Your task to perform on an android device: Show me recent news Image 0: 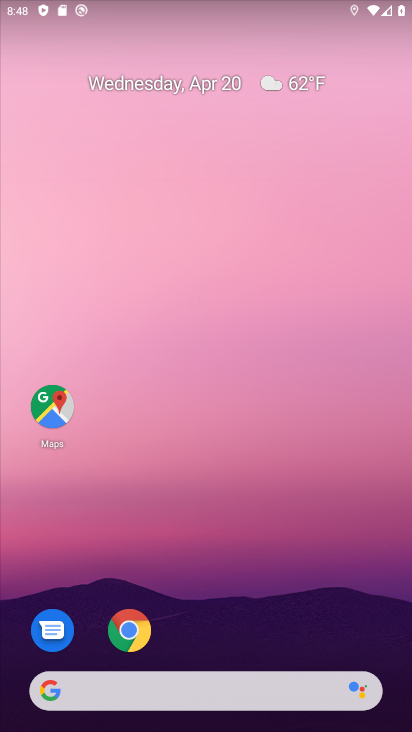
Step 0: drag from (207, 646) to (274, 20)
Your task to perform on an android device: Show me recent news Image 1: 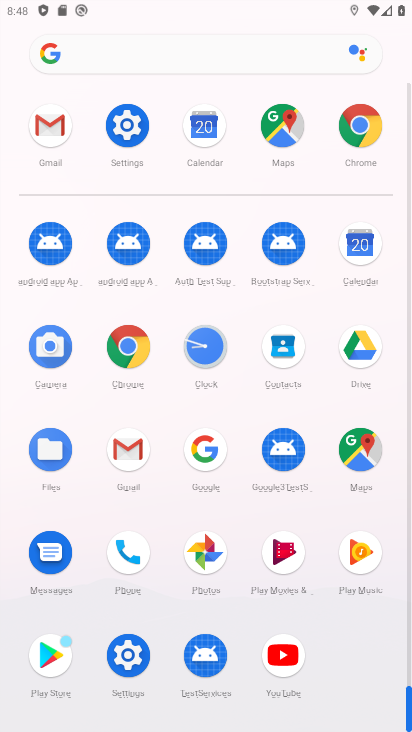
Step 1: click (114, 55)
Your task to perform on an android device: Show me recent news Image 2: 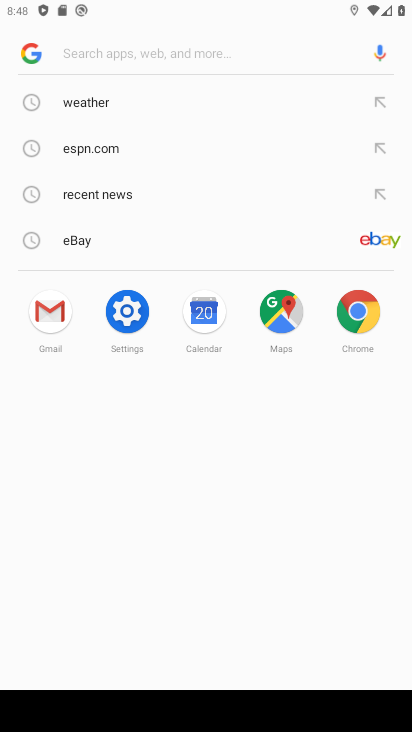
Step 2: drag from (113, 56) to (127, 181)
Your task to perform on an android device: Show me recent news Image 3: 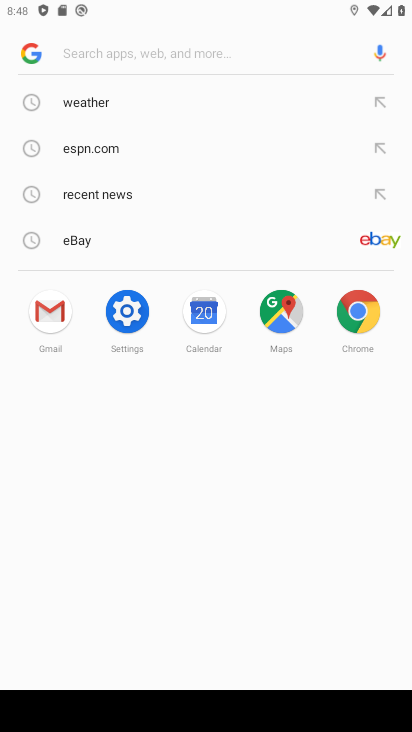
Step 3: click (108, 192)
Your task to perform on an android device: Show me recent news Image 4: 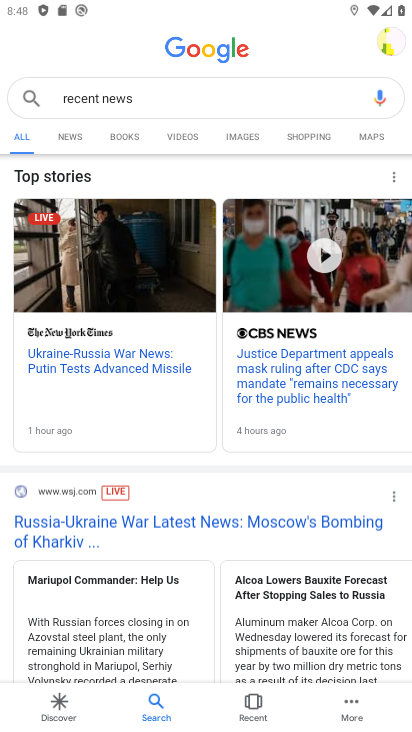
Step 4: task complete